Your task to perform on an android device: turn on the 12-hour format for clock Image 0: 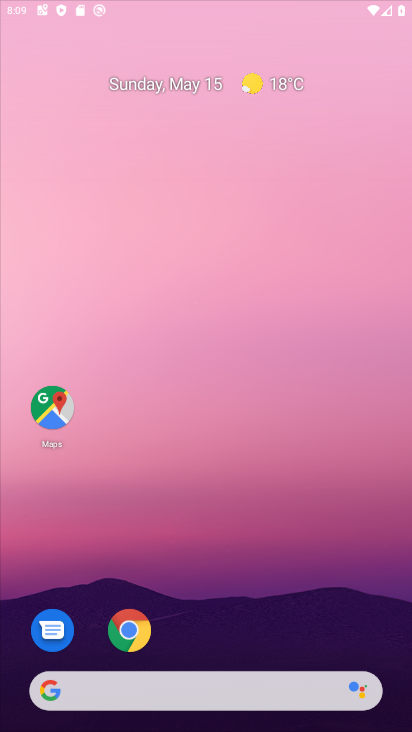
Step 0: drag from (220, 282) to (86, 2)
Your task to perform on an android device: turn on the 12-hour format for clock Image 1: 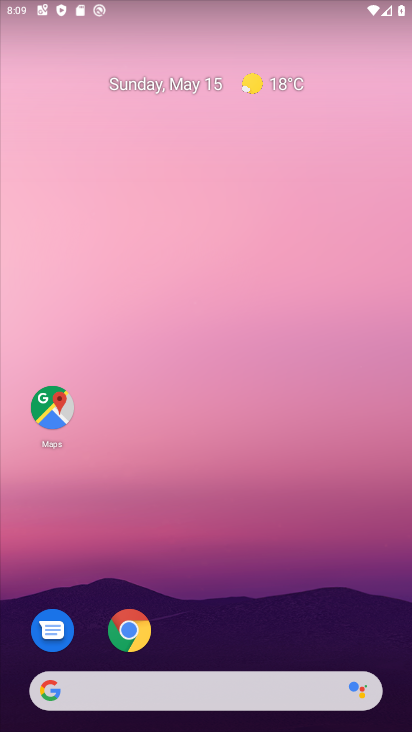
Step 1: drag from (186, 660) to (301, 14)
Your task to perform on an android device: turn on the 12-hour format for clock Image 2: 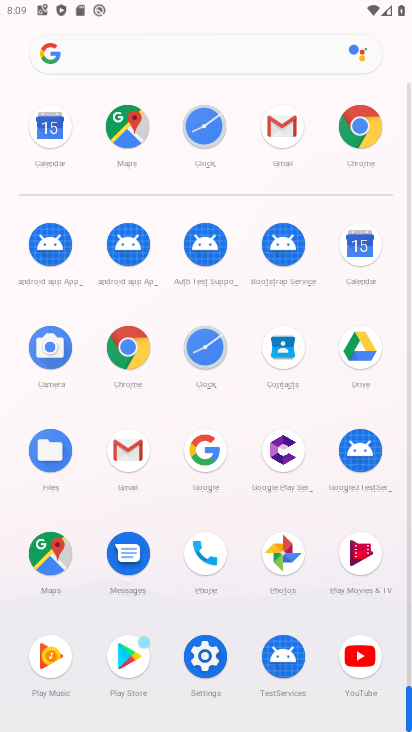
Step 2: click (216, 343)
Your task to perform on an android device: turn on the 12-hour format for clock Image 3: 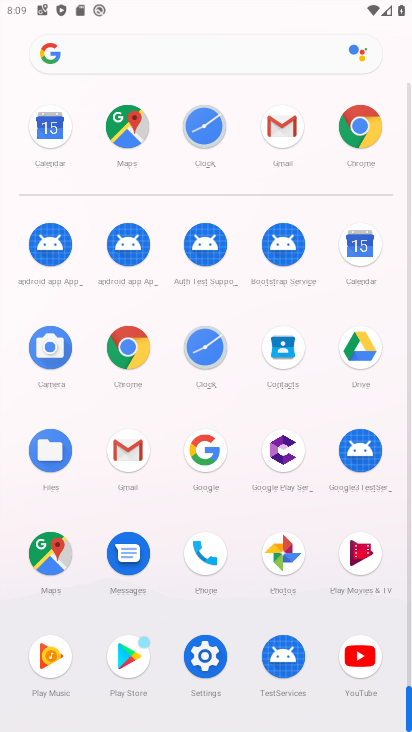
Step 3: click (214, 342)
Your task to perform on an android device: turn on the 12-hour format for clock Image 4: 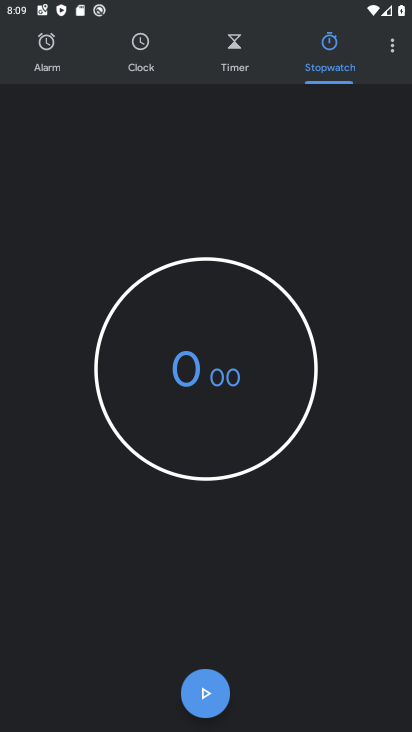
Step 4: click (390, 44)
Your task to perform on an android device: turn on the 12-hour format for clock Image 5: 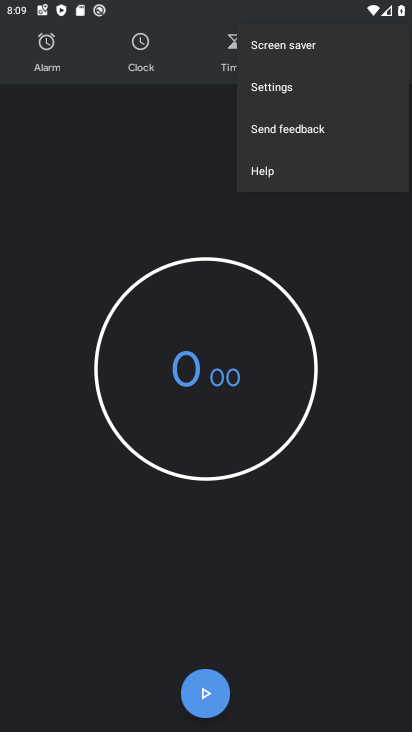
Step 5: click (285, 82)
Your task to perform on an android device: turn on the 12-hour format for clock Image 6: 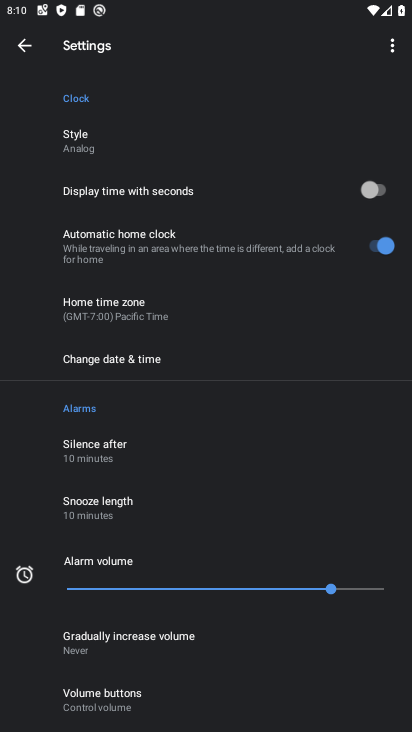
Step 6: click (135, 355)
Your task to perform on an android device: turn on the 12-hour format for clock Image 7: 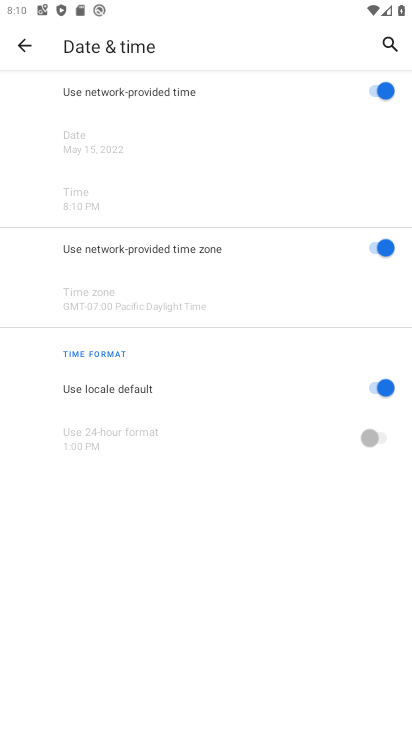
Step 7: task complete